Your task to perform on an android device: change notifications settings Image 0: 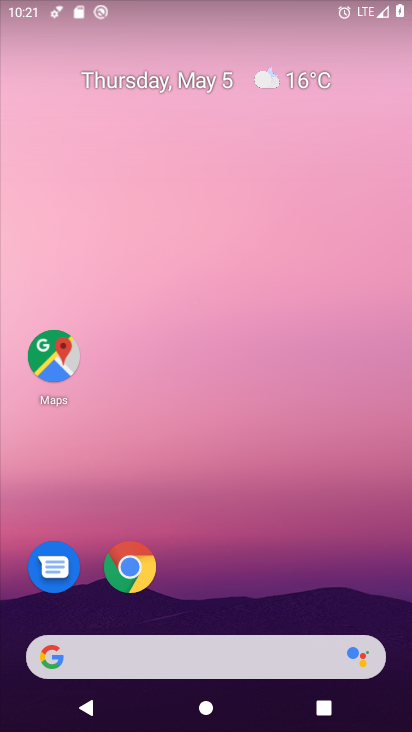
Step 0: drag from (267, 592) to (312, 50)
Your task to perform on an android device: change notifications settings Image 1: 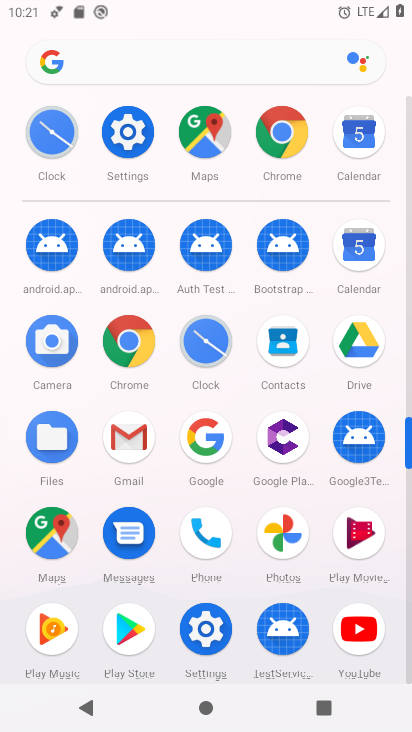
Step 1: click (132, 133)
Your task to perform on an android device: change notifications settings Image 2: 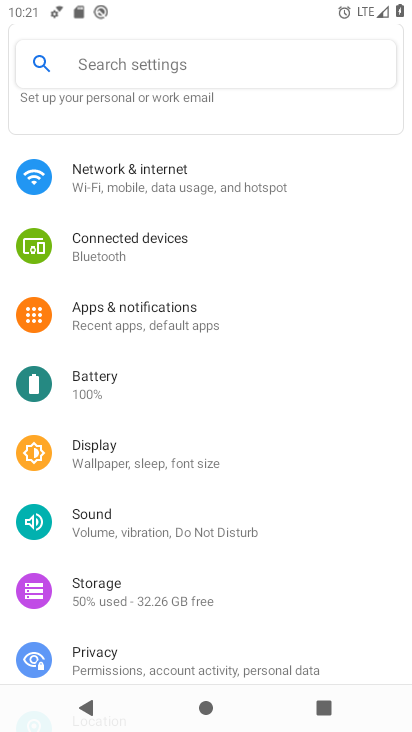
Step 2: click (151, 310)
Your task to perform on an android device: change notifications settings Image 3: 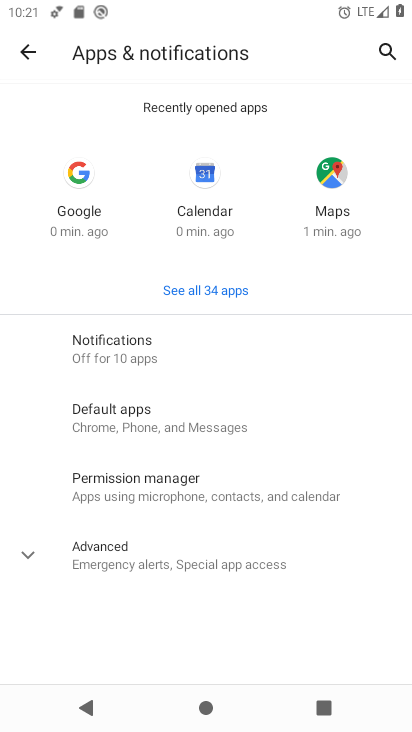
Step 3: click (139, 351)
Your task to perform on an android device: change notifications settings Image 4: 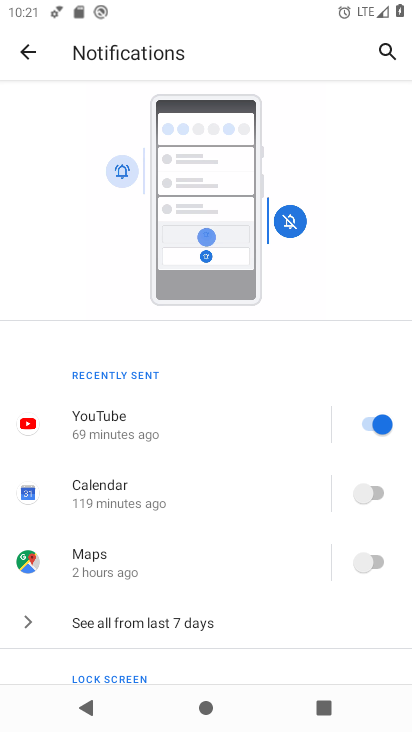
Step 4: click (182, 623)
Your task to perform on an android device: change notifications settings Image 5: 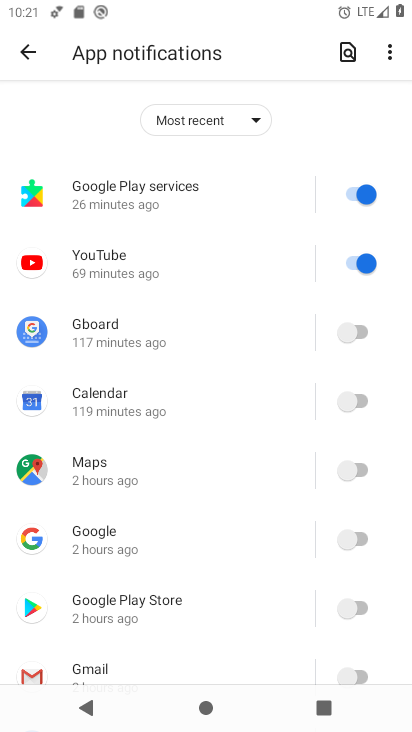
Step 5: click (349, 186)
Your task to perform on an android device: change notifications settings Image 6: 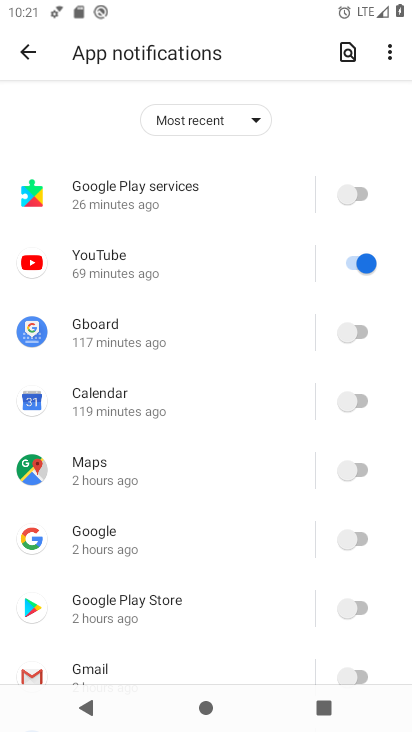
Step 6: click (351, 248)
Your task to perform on an android device: change notifications settings Image 7: 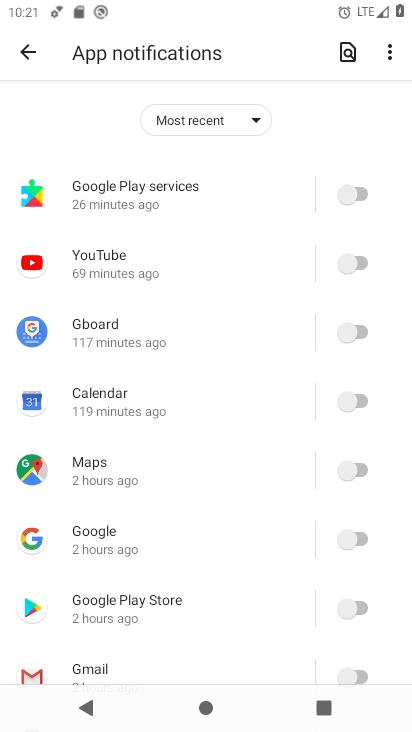
Step 7: click (359, 326)
Your task to perform on an android device: change notifications settings Image 8: 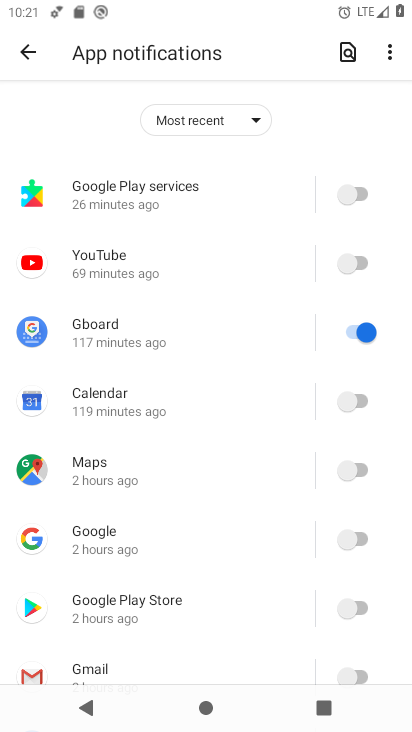
Step 8: click (364, 399)
Your task to perform on an android device: change notifications settings Image 9: 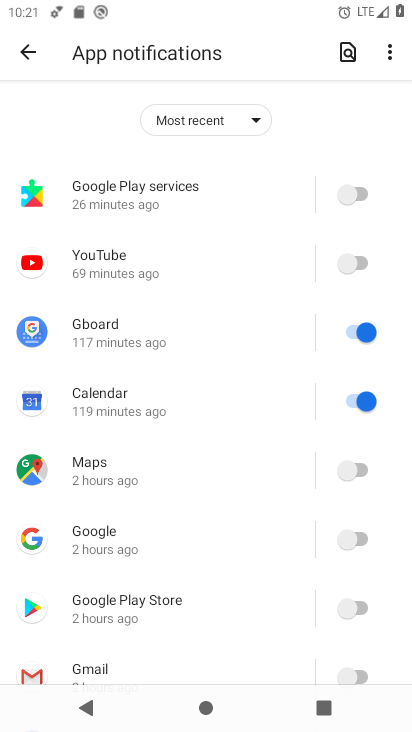
Step 9: click (367, 466)
Your task to perform on an android device: change notifications settings Image 10: 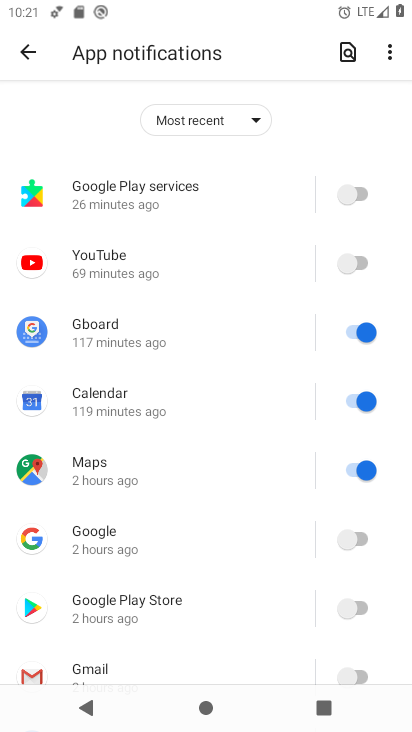
Step 10: click (355, 534)
Your task to perform on an android device: change notifications settings Image 11: 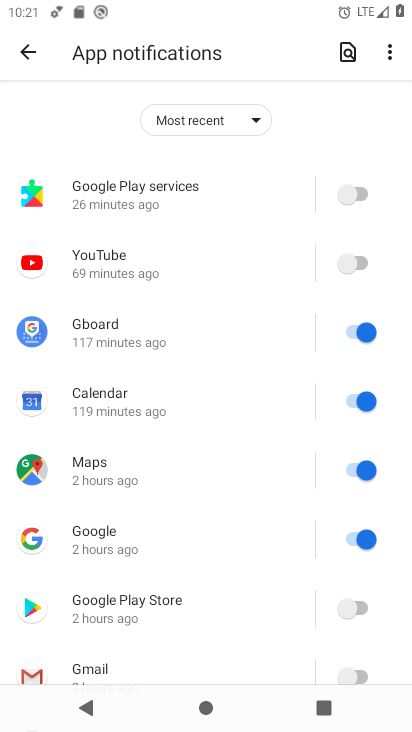
Step 11: click (357, 602)
Your task to perform on an android device: change notifications settings Image 12: 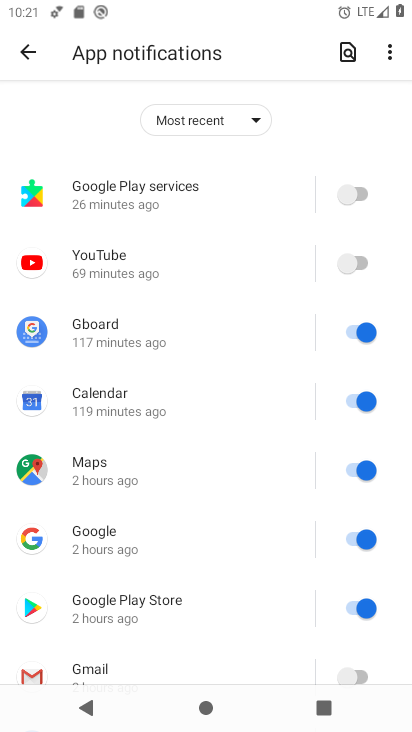
Step 12: click (352, 671)
Your task to perform on an android device: change notifications settings Image 13: 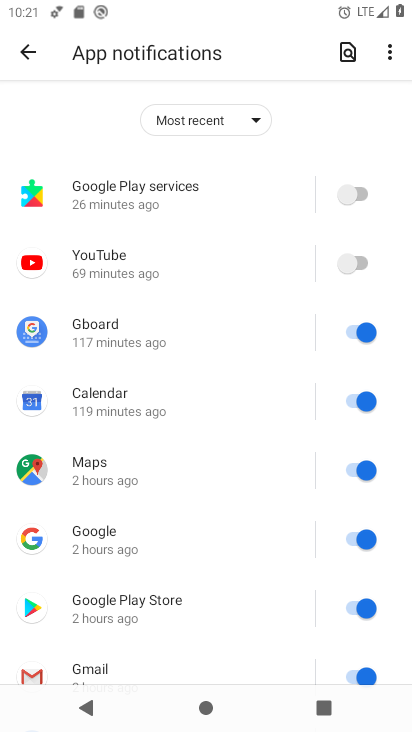
Step 13: drag from (262, 556) to (220, 151)
Your task to perform on an android device: change notifications settings Image 14: 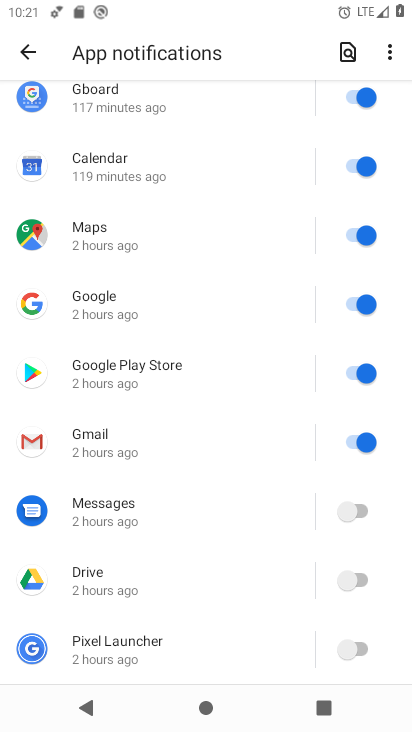
Step 14: click (351, 505)
Your task to perform on an android device: change notifications settings Image 15: 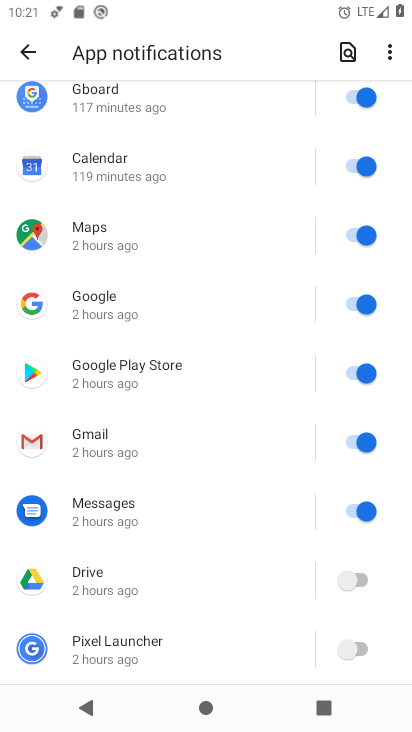
Step 15: click (358, 577)
Your task to perform on an android device: change notifications settings Image 16: 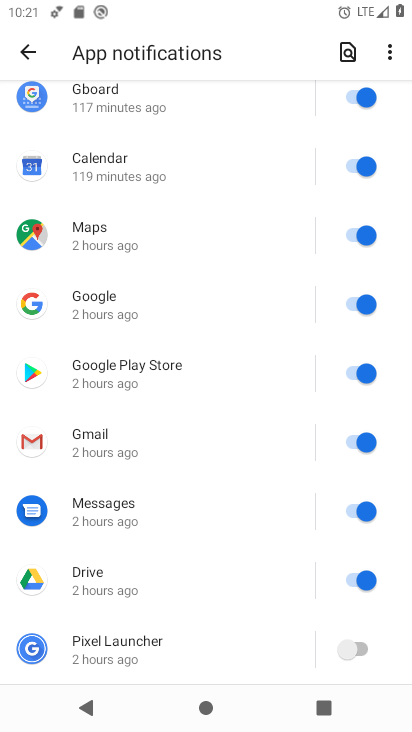
Step 16: click (361, 646)
Your task to perform on an android device: change notifications settings Image 17: 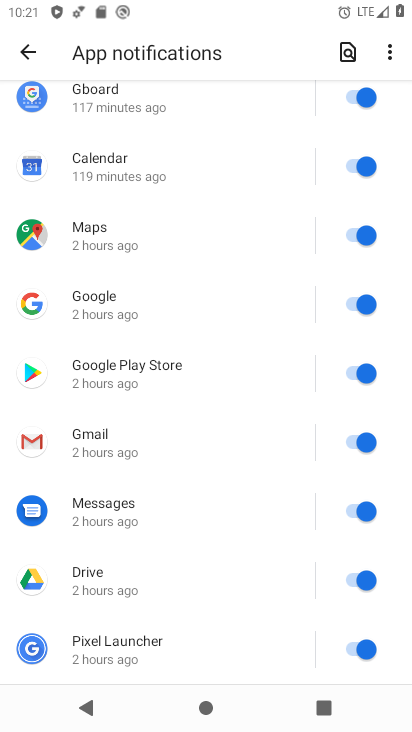
Step 17: task complete